Your task to perform on an android device: Open Google Chrome and open the bookmarks view Image 0: 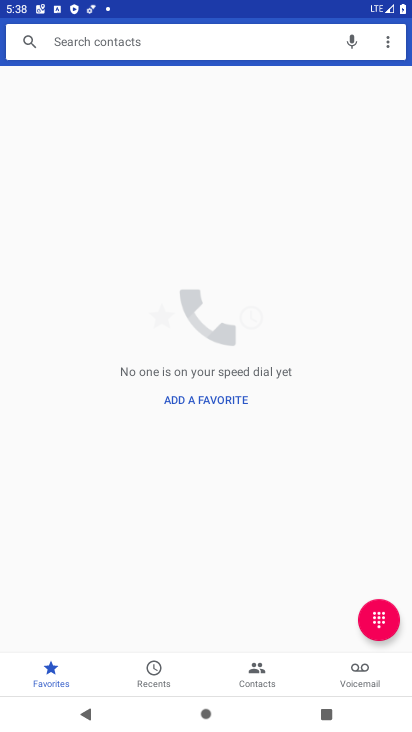
Step 0: press home button
Your task to perform on an android device: Open Google Chrome and open the bookmarks view Image 1: 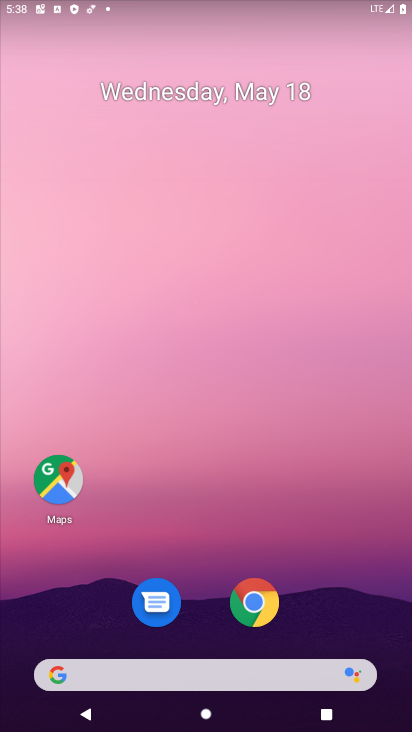
Step 1: drag from (240, 674) to (236, 118)
Your task to perform on an android device: Open Google Chrome and open the bookmarks view Image 2: 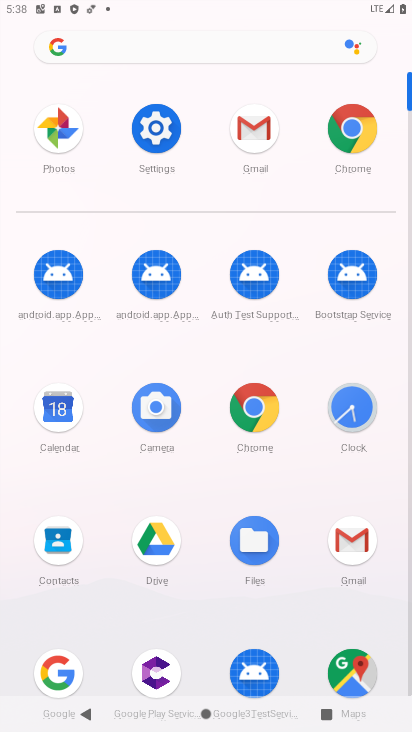
Step 2: click (248, 419)
Your task to perform on an android device: Open Google Chrome and open the bookmarks view Image 3: 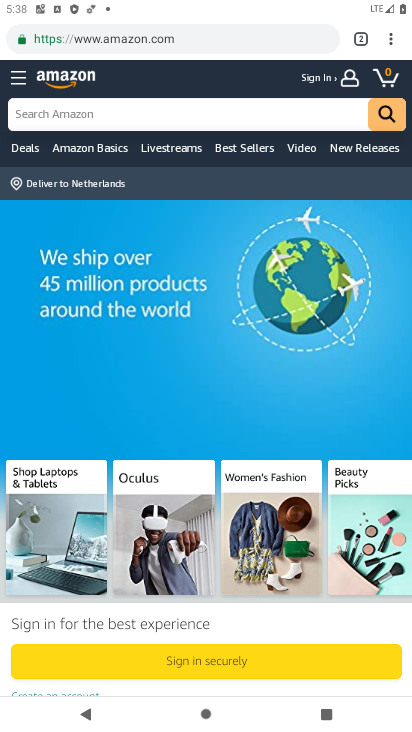
Step 3: click (397, 39)
Your task to perform on an android device: Open Google Chrome and open the bookmarks view Image 4: 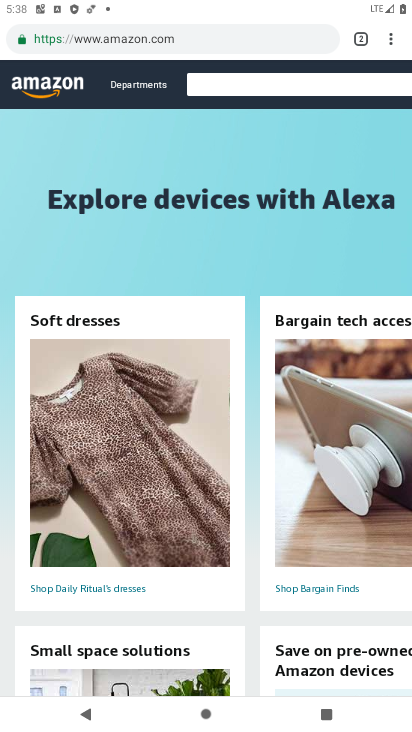
Step 4: click (384, 36)
Your task to perform on an android device: Open Google Chrome and open the bookmarks view Image 5: 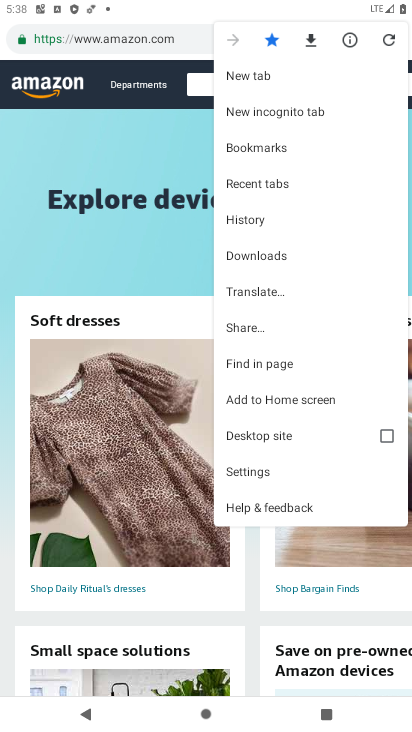
Step 5: click (264, 150)
Your task to perform on an android device: Open Google Chrome and open the bookmarks view Image 6: 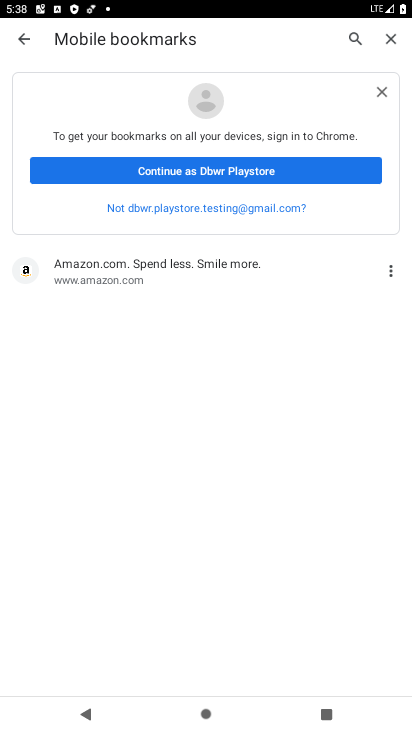
Step 6: task complete